Your task to perform on an android device: Open maps Image 0: 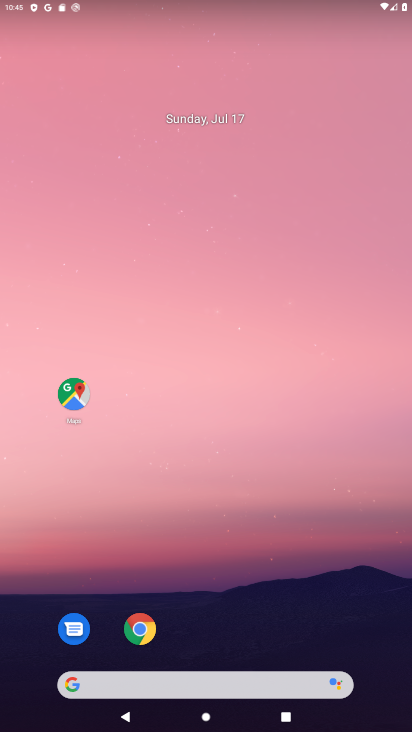
Step 0: click (87, 399)
Your task to perform on an android device: Open maps Image 1: 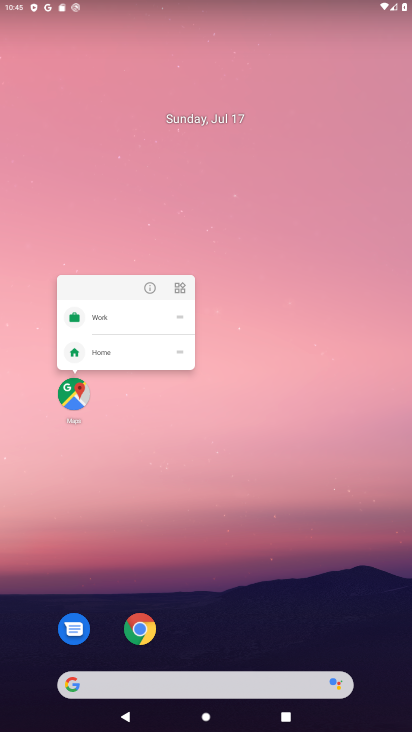
Step 1: click (80, 396)
Your task to perform on an android device: Open maps Image 2: 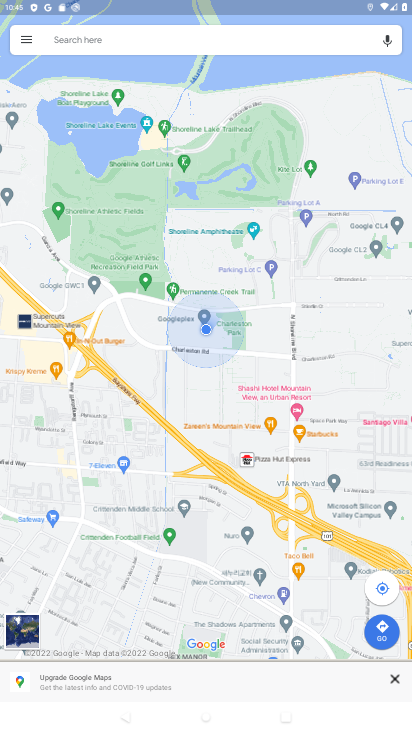
Step 2: task complete